Your task to perform on an android device: Open Android settings Image 0: 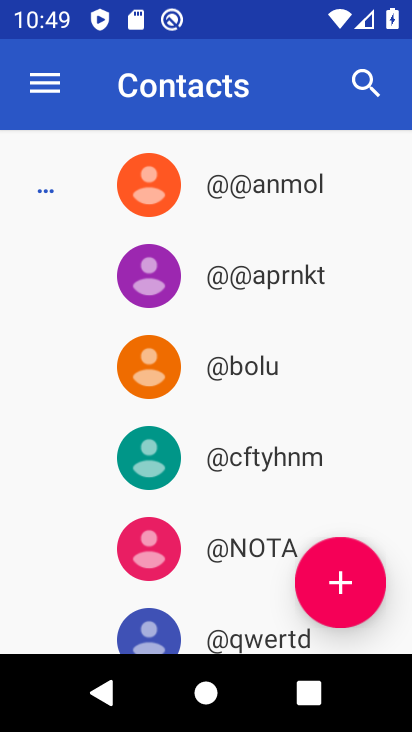
Step 0: press home button
Your task to perform on an android device: Open Android settings Image 1: 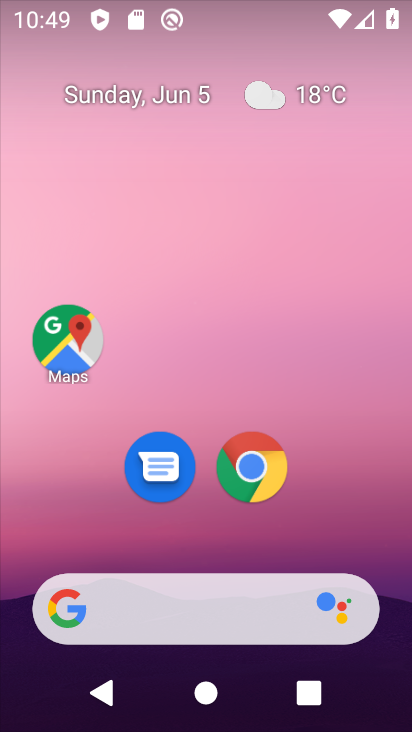
Step 1: drag from (223, 555) to (189, 110)
Your task to perform on an android device: Open Android settings Image 2: 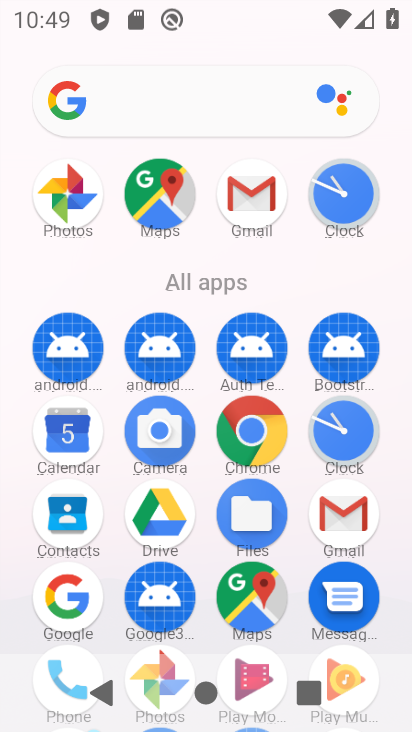
Step 2: drag from (205, 558) to (167, 5)
Your task to perform on an android device: Open Android settings Image 3: 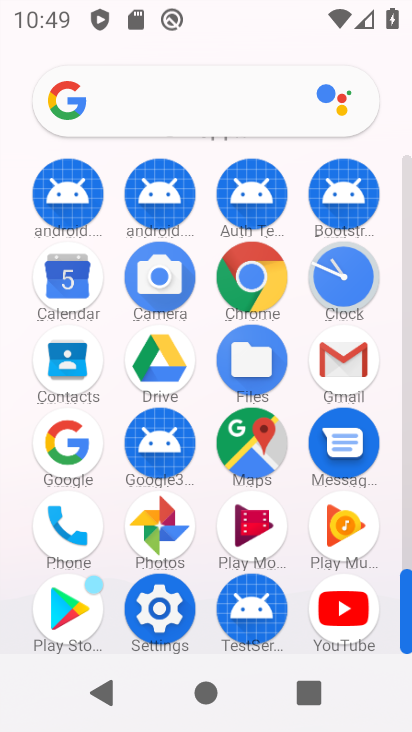
Step 3: click (165, 607)
Your task to perform on an android device: Open Android settings Image 4: 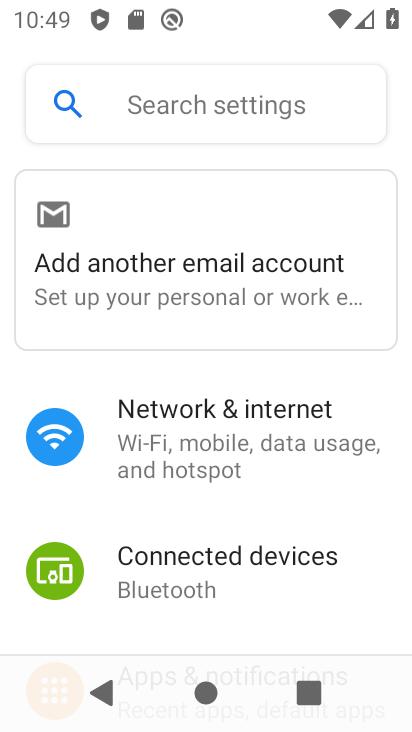
Step 4: task complete